Your task to perform on an android device: When is my next appointment? Image 0: 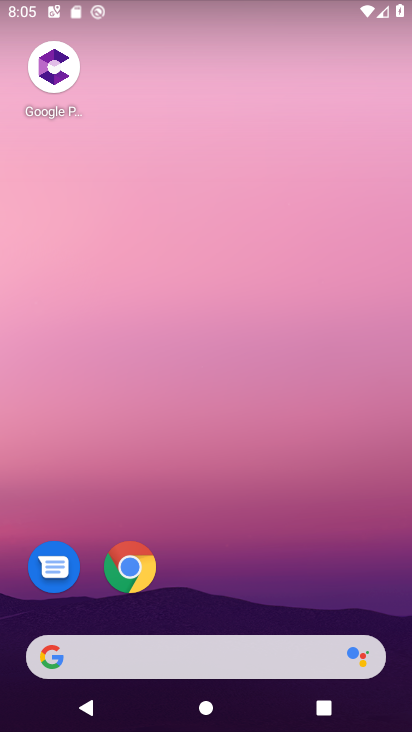
Step 0: drag from (316, 552) to (254, 23)
Your task to perform on an android device: When is my next appointment? Image 1: 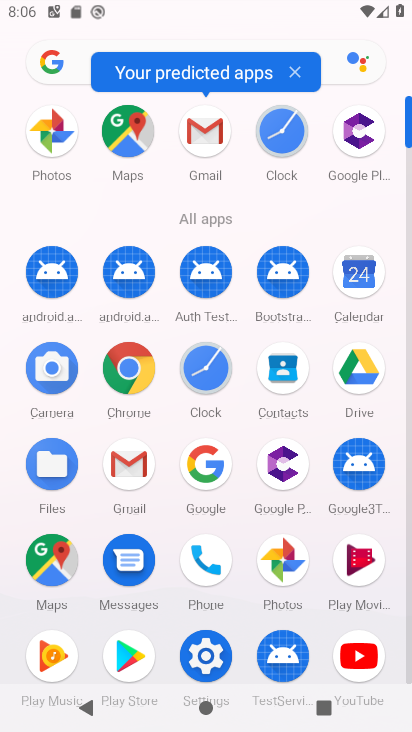
Step 1: click (365, 267)
Your task to perform on an android device: When is my next appointment? Image 2: 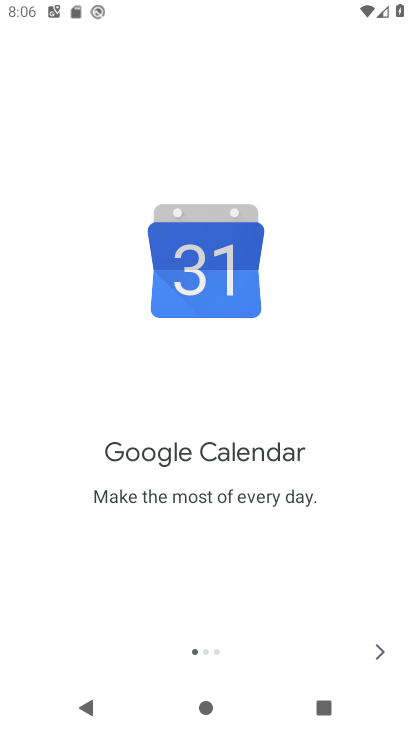
Step 2: click (381, 650)
Your task to perform on an android device: When is my next appointment? Image 3: 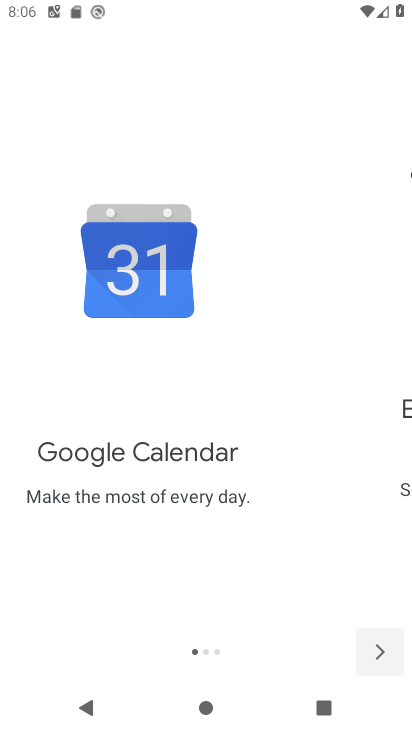
Step 3: click (381, 650)
Your task to perform on an android device: When is my next appointment? Image 4: 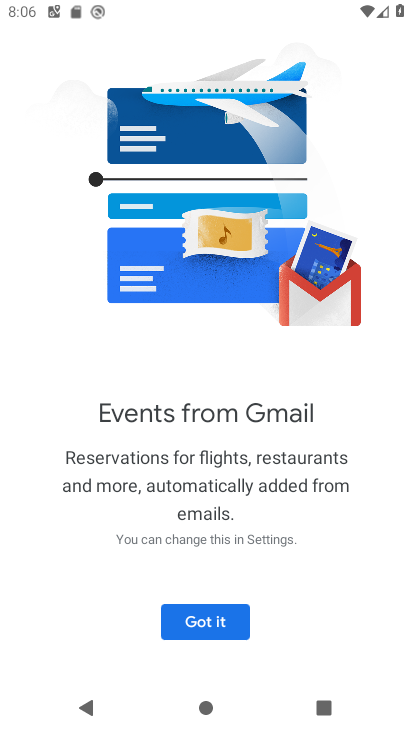
Step 4: click (231, 616)
Your task to perform on an android device: When is my next appointment? Image 5: 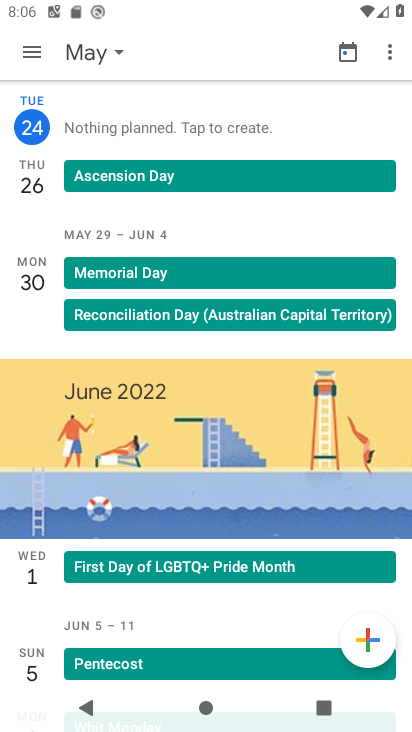
Step 5: drag from (41, 320) to (33, 467)
Your task to perform on an android device: When is my next appointment? Image 6: 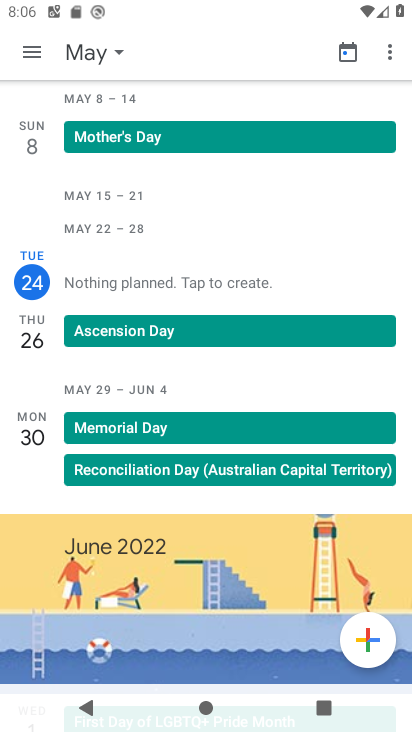
Step 6: click (114, 48)
Your task to perform on an android device: When is my next appointment? Image 7: 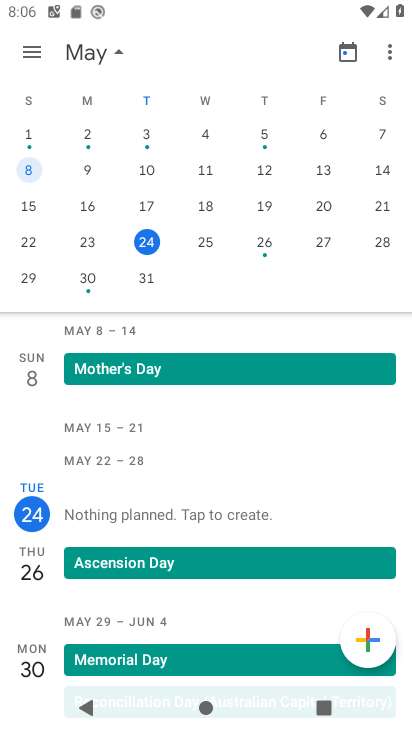
Step 7: click (203, 238)
Your task to perform on an android device: When is my next appointment? Image 8: 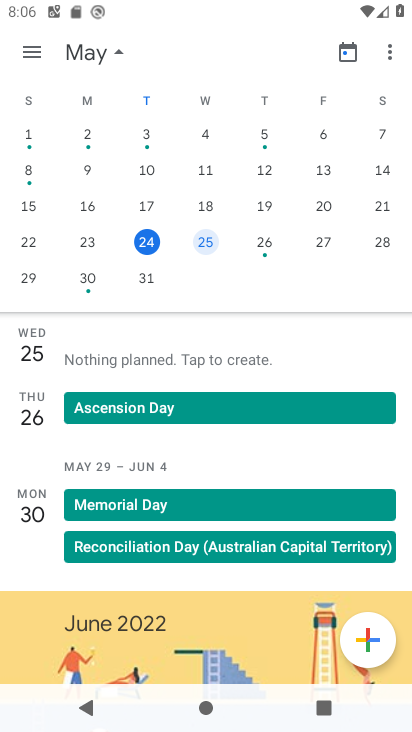
Step 8: task complete